Your task to perform on an android device: Open battery settings Image 0: 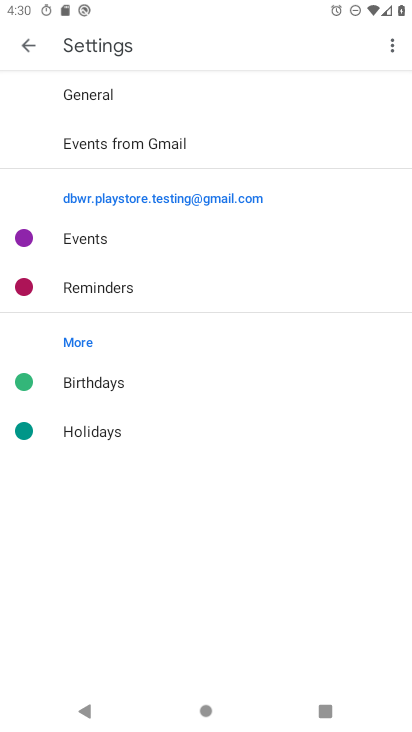
Step 0: press home button
Your task to perform on an android device: Open battery settings Image 1: 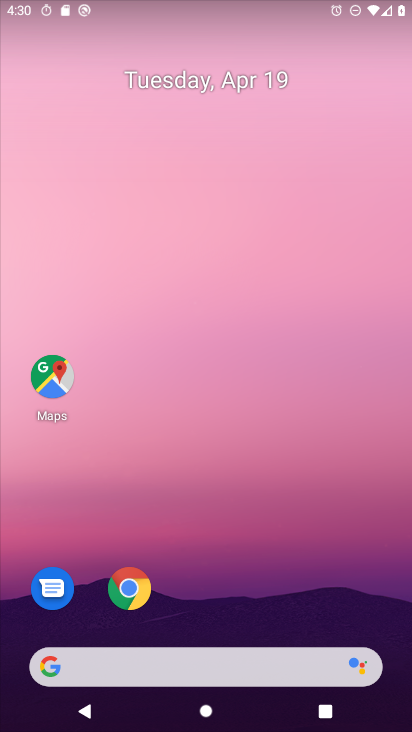
Step 1: drag from (220, 580) to (215, 98)
Your task to perform on an android device: Open battery settings Image 2: 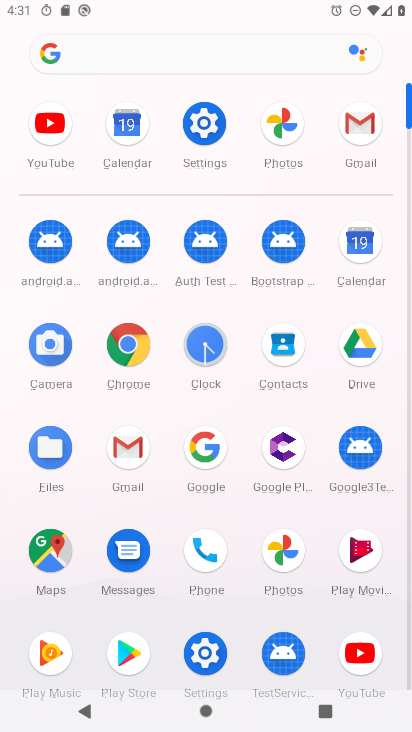
Step 2: click (212, 133)
Your task to perform on an android device: Open battery settings Image 3: 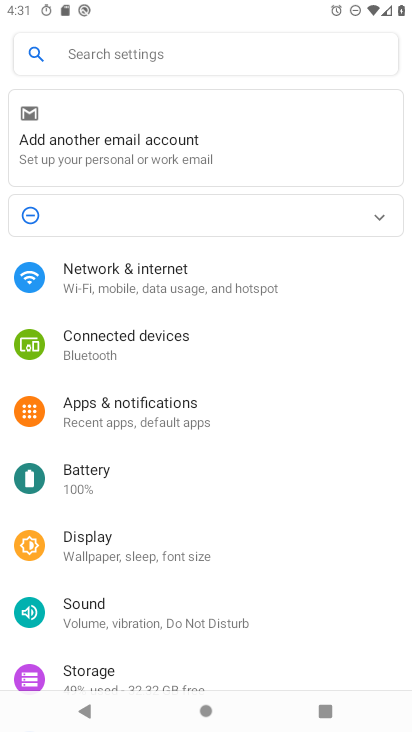
Step 3: click (120, 486)
Your task to perform on an android device: Open battery settings Image 4: 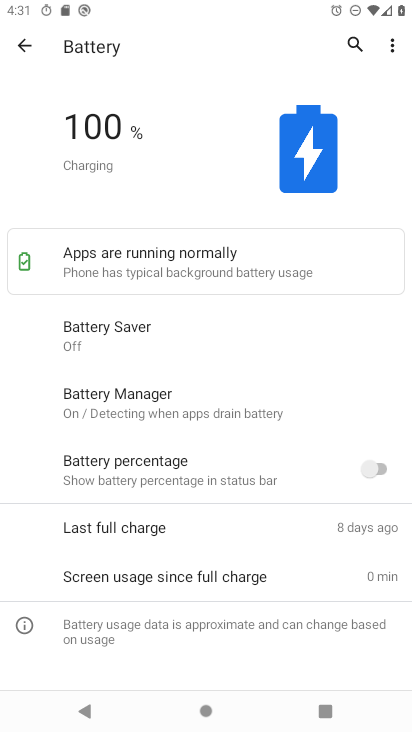
Step 4: task complete